Your task to perform on an android device: View the shopping cart on newegg. Image 0: 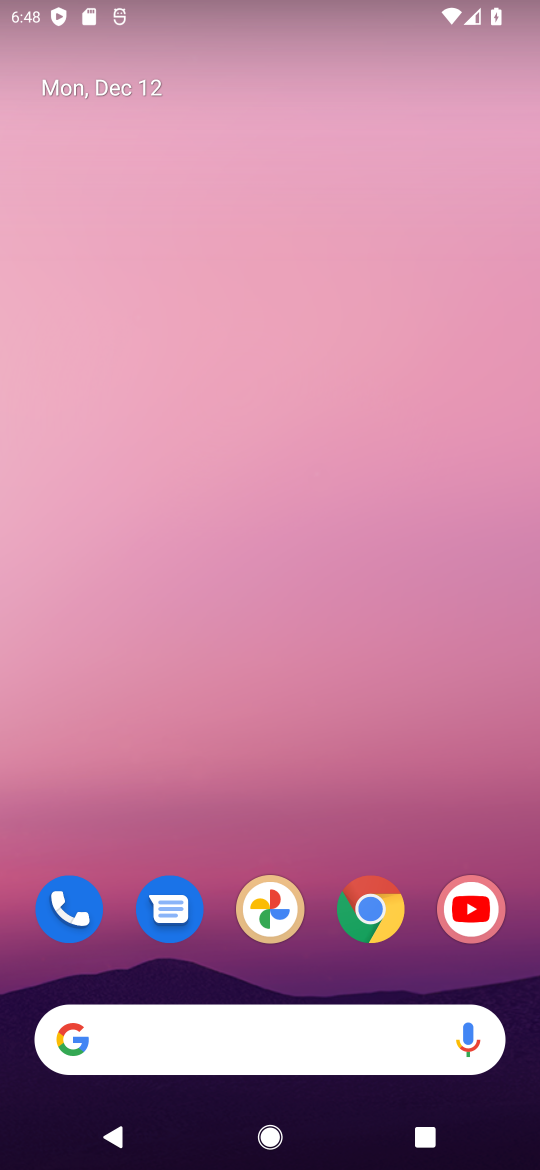
Step 0: click (382, 932)
Your task to perform on an android device: View the shopping cart on newegg. Image 1: 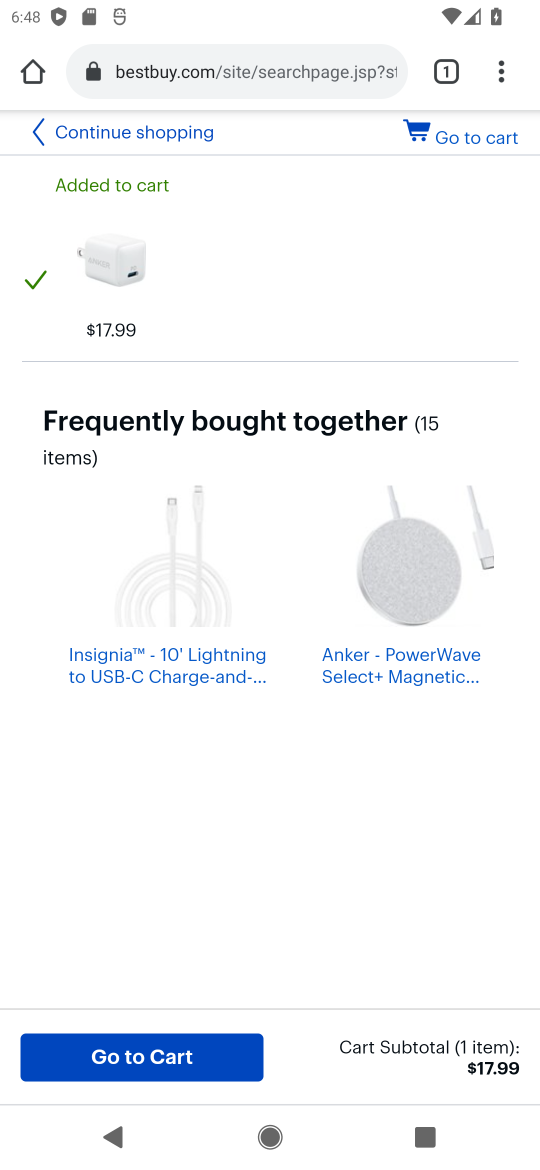
Step 1: click (214, 66)
Your task to perform on an android device: View the shopping cart on newegg. Image 2: 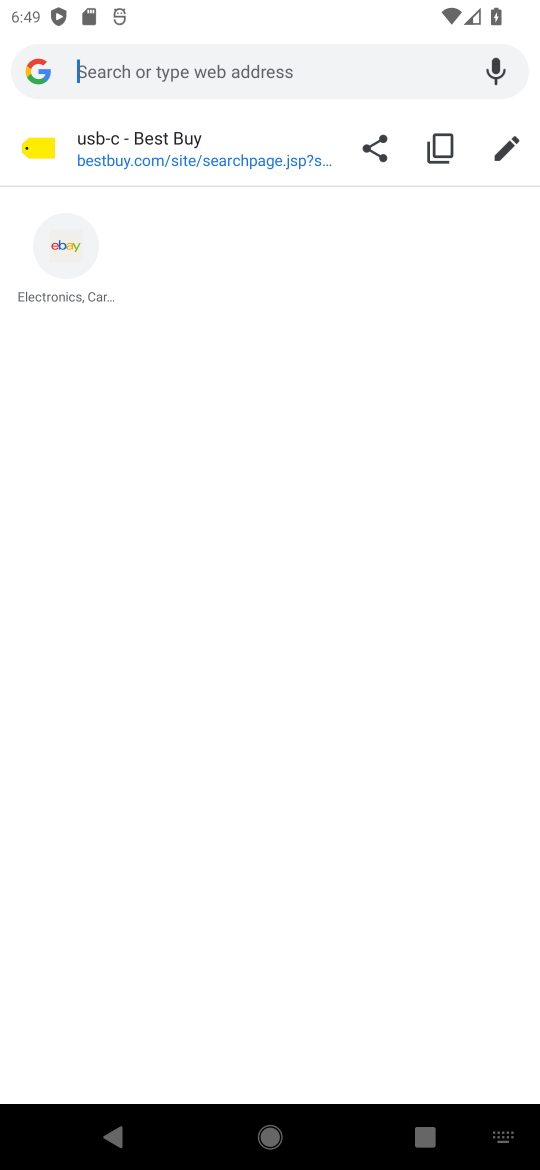
Step 2: type "newegg"
Your task to perform on an android device: View the shopping cart on newegg. Image 3: 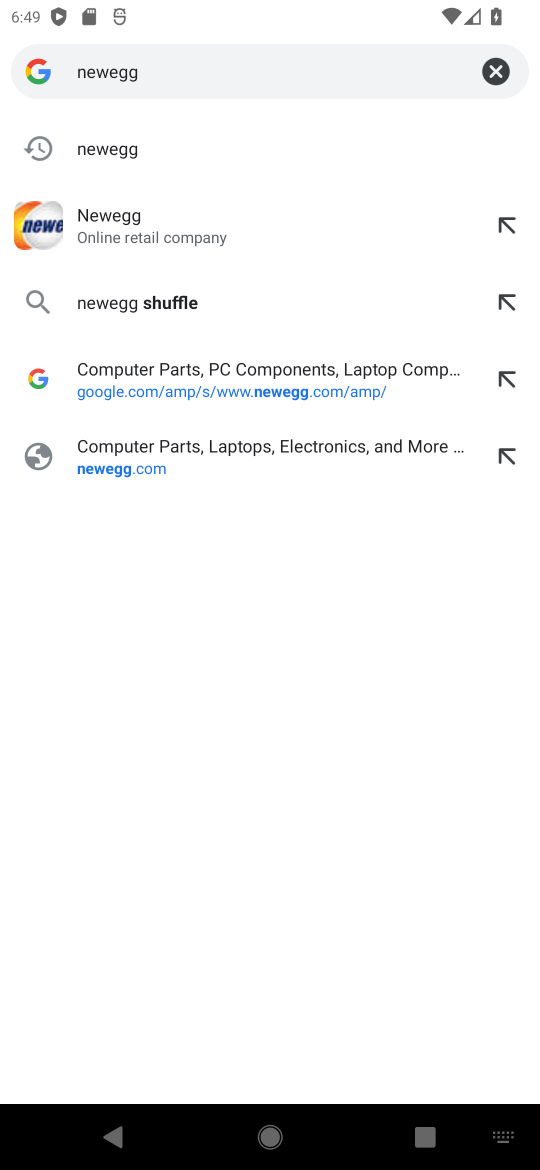
Step 3: click (184, 243)
Your task to perform on an android device: View the shopping cart on newegg. Image 4: 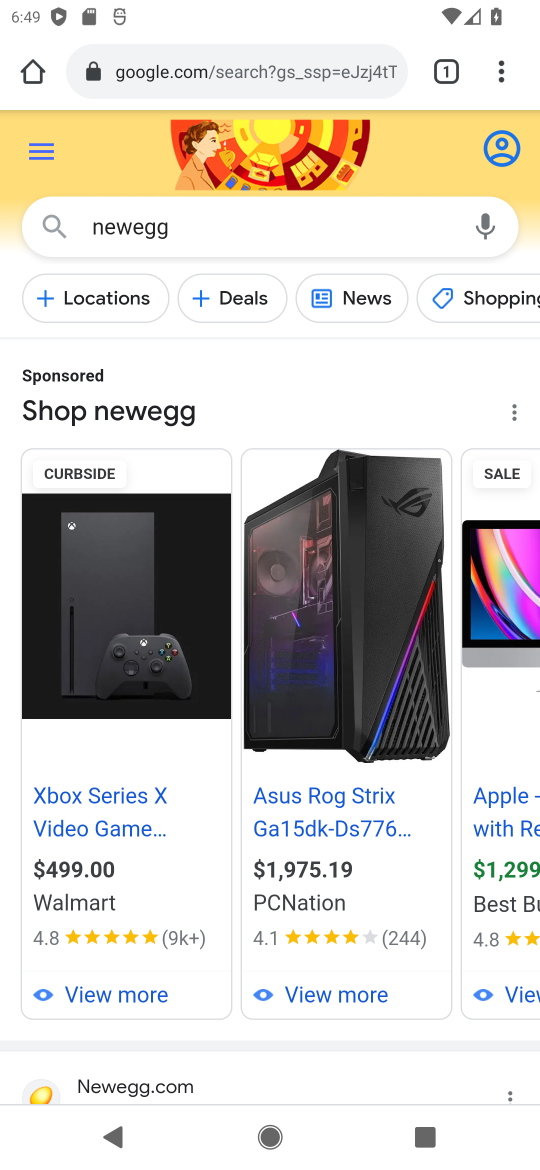
Step 4: click (103, 1088)
Your task to perform on an android device: View the shopping cart on newegg. Image 5: 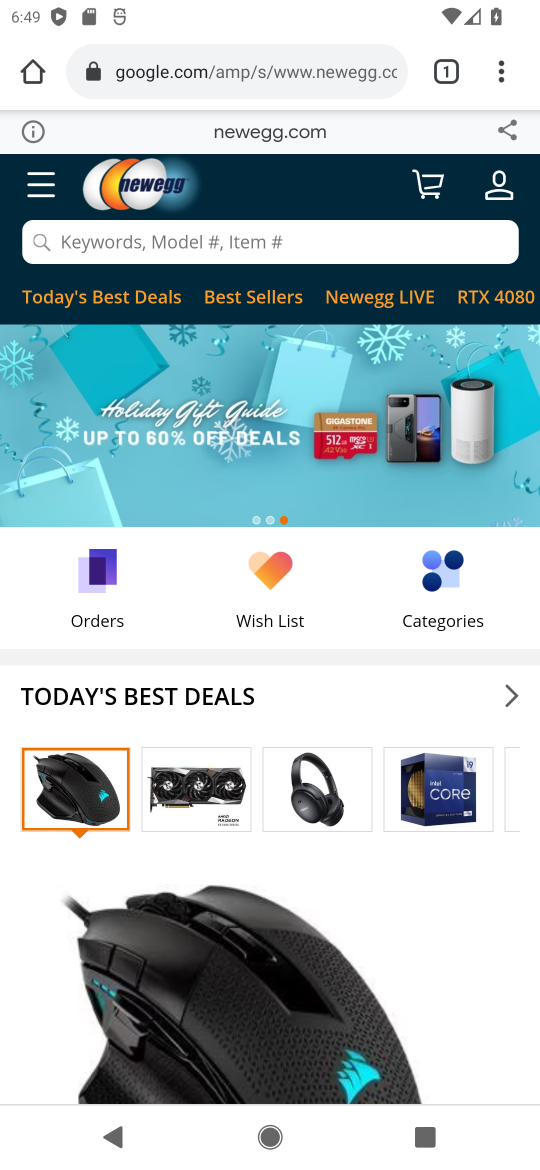
Step 5: click (430, 194)
Your task to perform on an android device: View the shopping cart on newegg. Image 6: 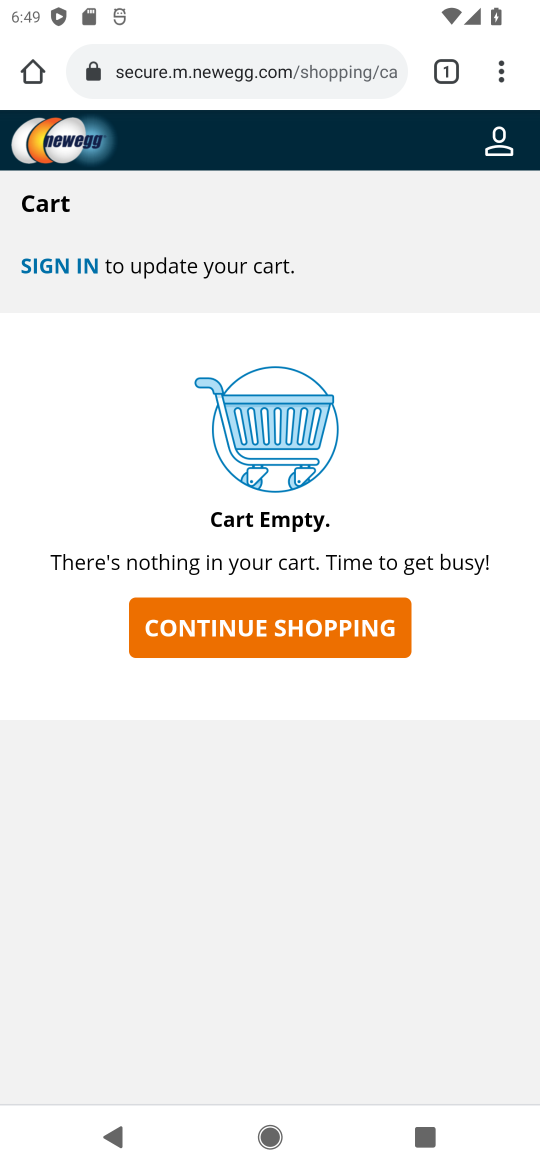
Step 6: task complete